Your task to perform on an android device: turn on javascript in the chrome app Image 0: 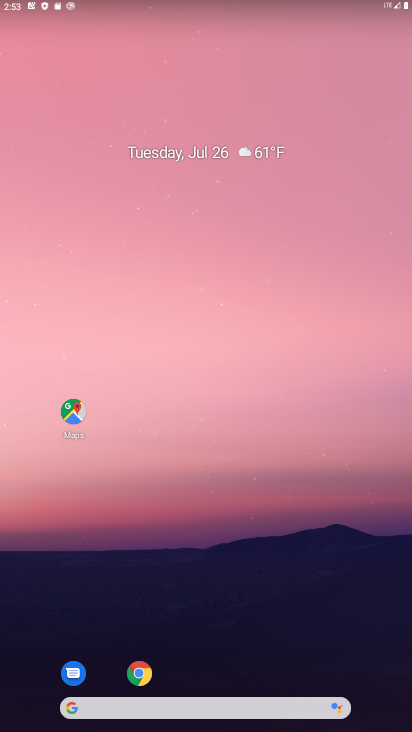
Step 0: drag from (191, 636) to (162, 48)
Your task to perform on an android device: turn on javascript in the chrome app Image 1: 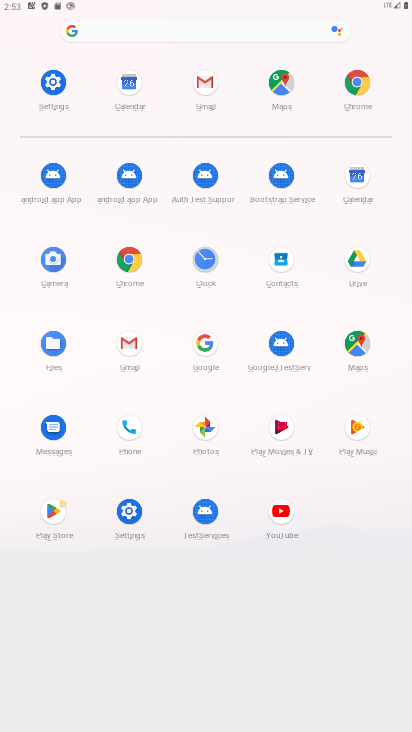
Step 1: click (131, 264)
Your task to perform on an android device: turn on javascript in the chrome app Image 2: 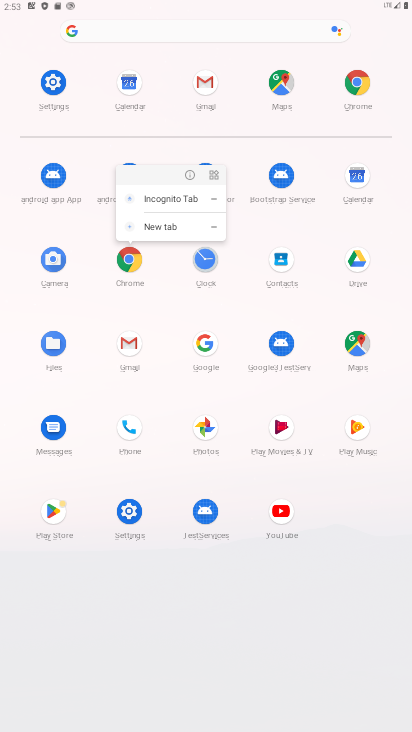
Step 2: click (183, 168)
Your task to perform on an android device: turn on javascript in the chrome app Image 3: 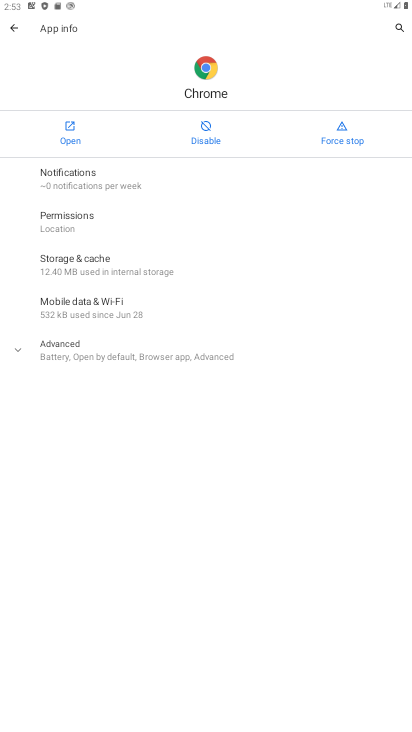
Step 3: click (70, 124)
Your task to perform on an android device: turn on javascript in the chrome app Image 4: 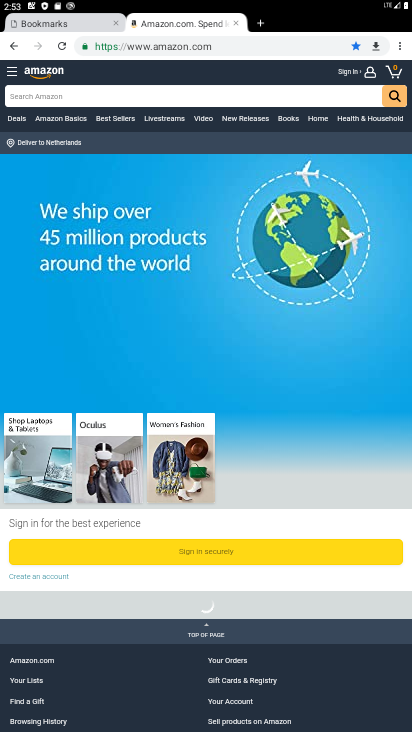
Step 4: drag from (395, 49) to (315, 305)
Your task to perform on an android device: turn on javascript in the chrome app Image 5: 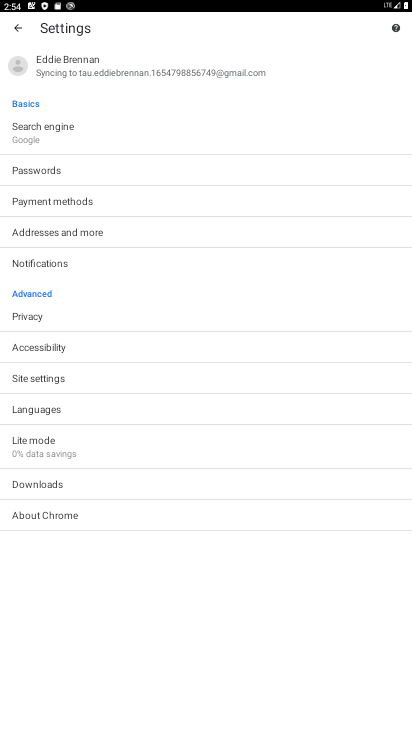
Step 5: click (56, 374)
Your task to perform on an android device: turn on javascript in the chrome app Image 6: 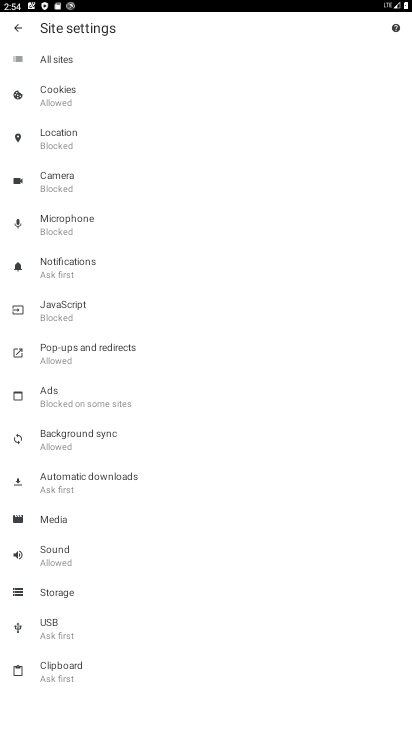
Step 6: click (68, 299)
Your task to perform on an android device: turn on javascript in the chrome app Image 7: 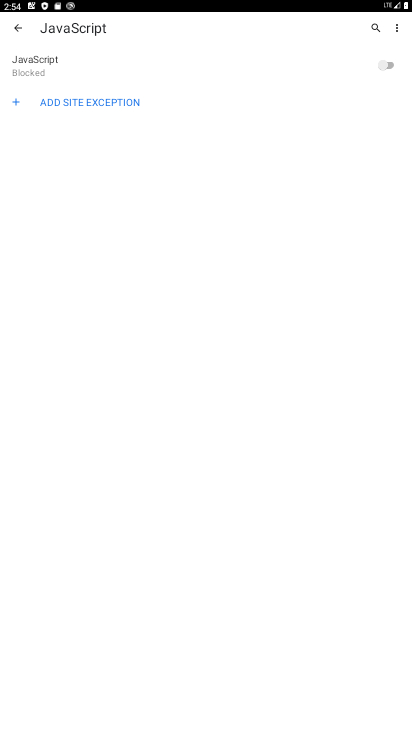
Step 7: click (370, 64)
Your task to perform on an android device: turn on javascript in the chrome app Image 8: 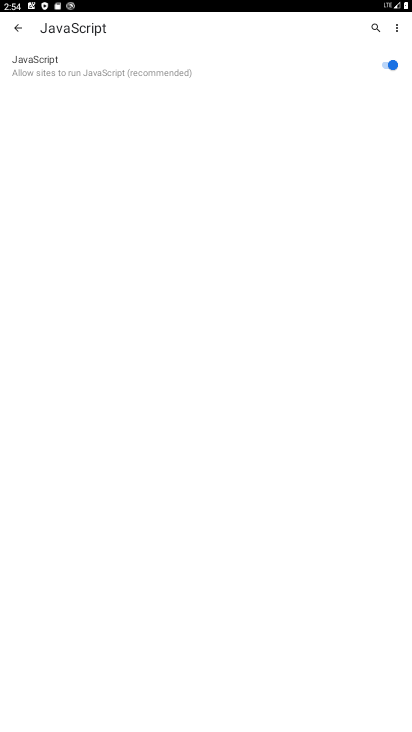
Step 8: task complete